Your task to perform on an android device: What is the news today? Image 0: 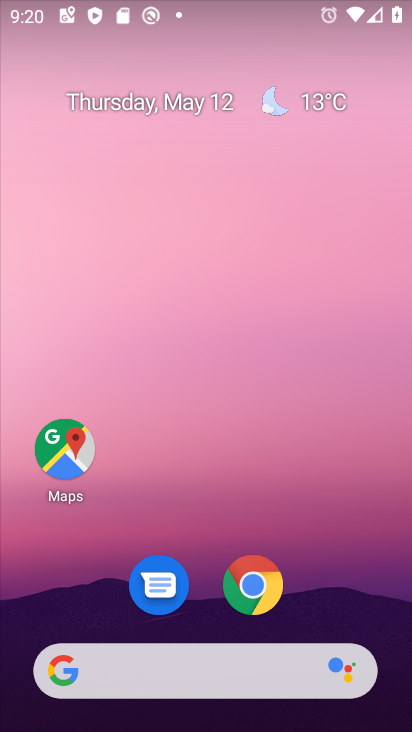
Step 0: drag from (218, 520) to (222, 71)
Your task to perform on an android device: What is the news today? Image 1: 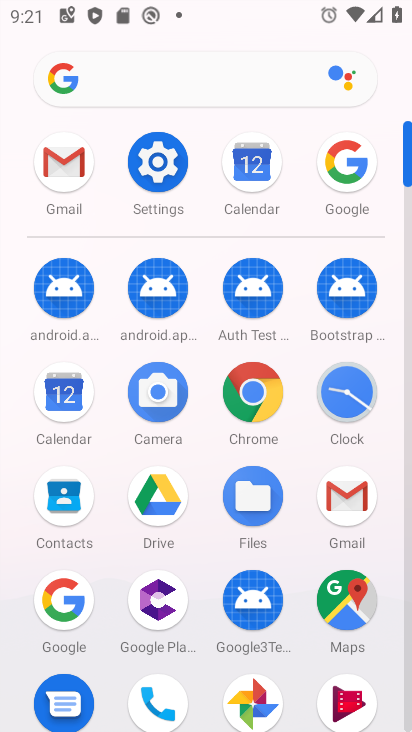
Step 1: click (57, 591)
Your task to perform on an android device: What is the news today? Image 2: 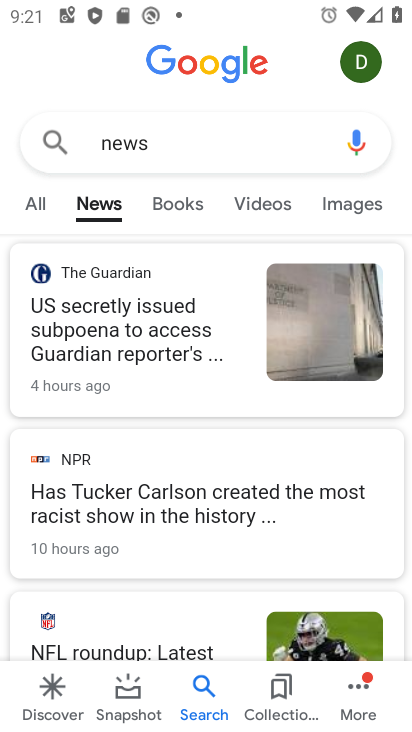
Step 2: task complete